Your task to perform on an android device: open a bookmark in the chrome app Image 0: 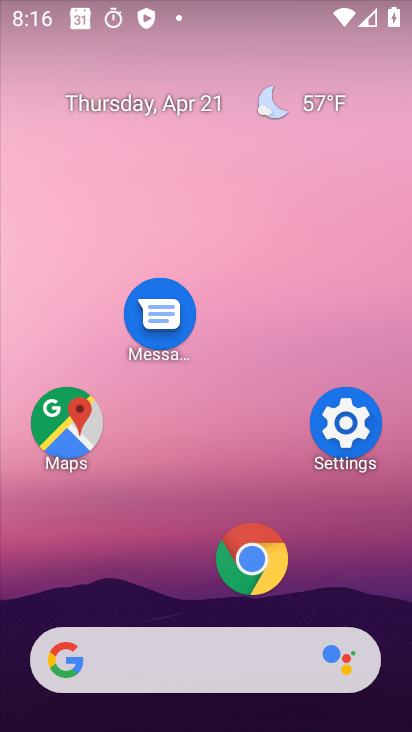
Step 0: drag from (266, 711) to (96, 94)
Your task to perform on an android device: open a bookmark in the chrome app Image 1: 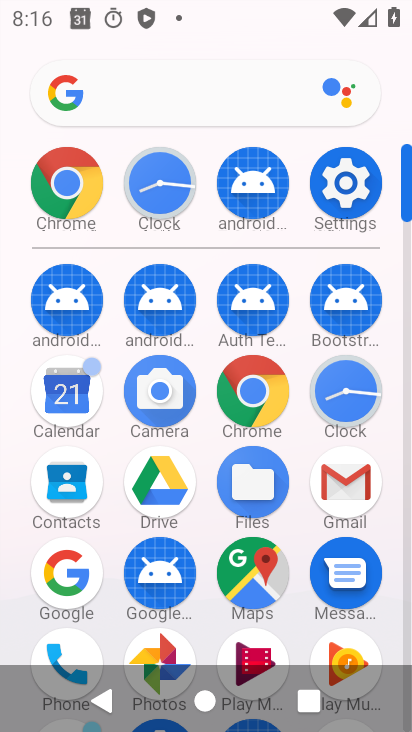
Step 1: click (256, 385)
Your task to perform on an android device: open a bookmark in the chrome app Image 2: 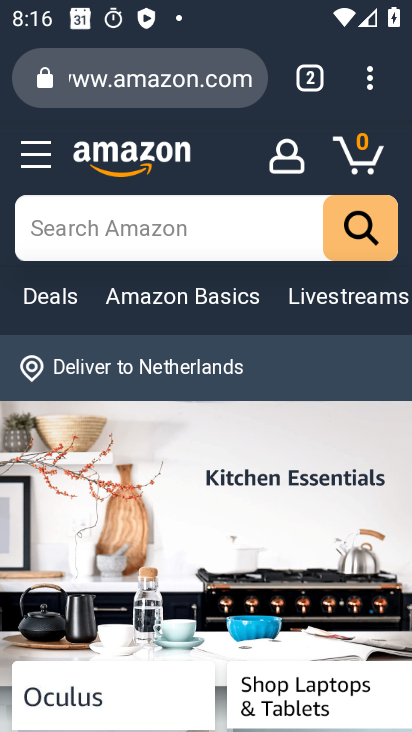
Step 2: task complete